Your task to perform on an android device: Go to notification settings Image 0: 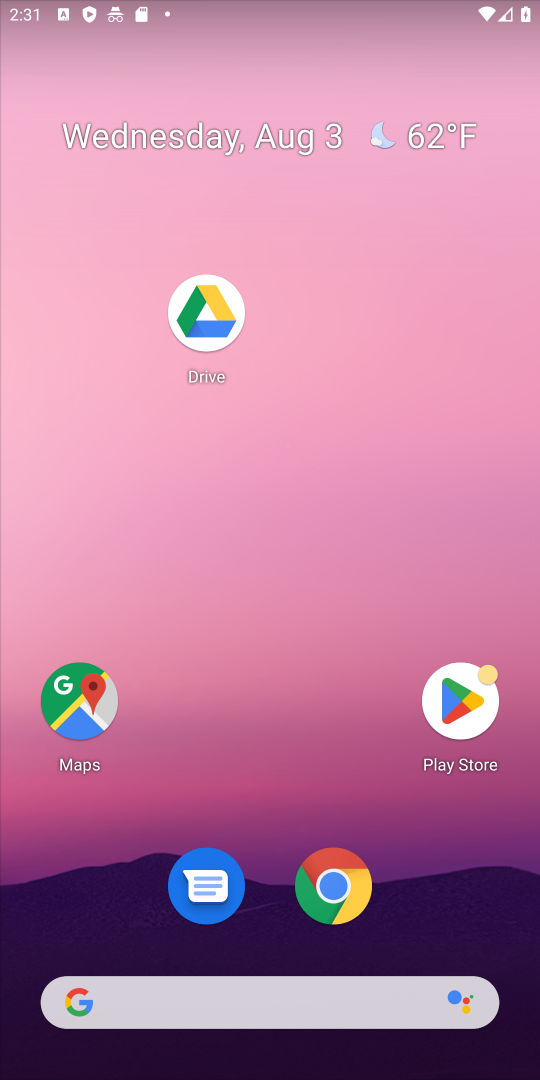
Step 0: drag from (406, 857) to (486, 7)
Your task to perform on an android device: Go to notification settings Image 1: 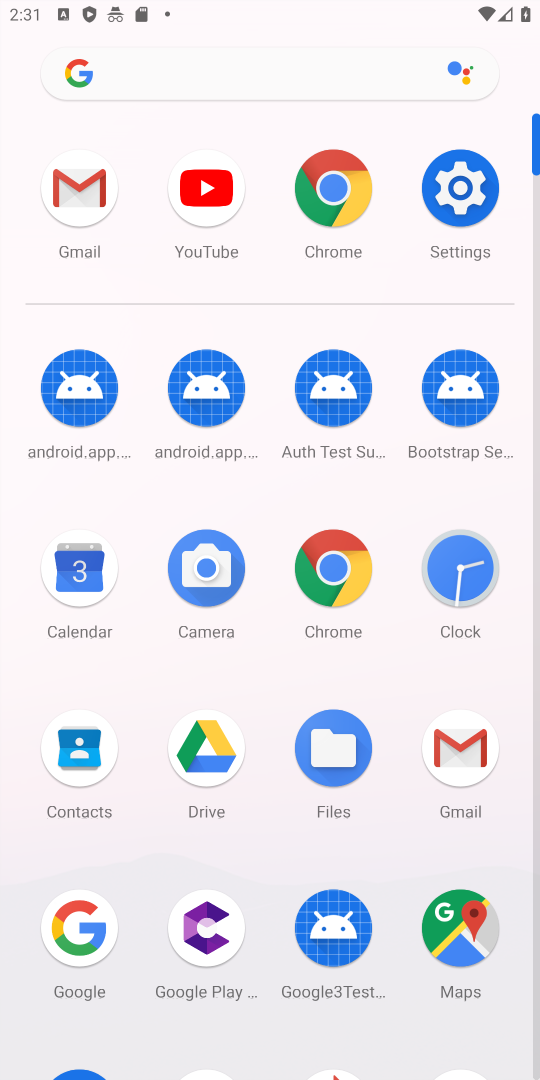
Step 1: click (468, 182)
Your task to perform on an android device: Go to notification settings Image 2: 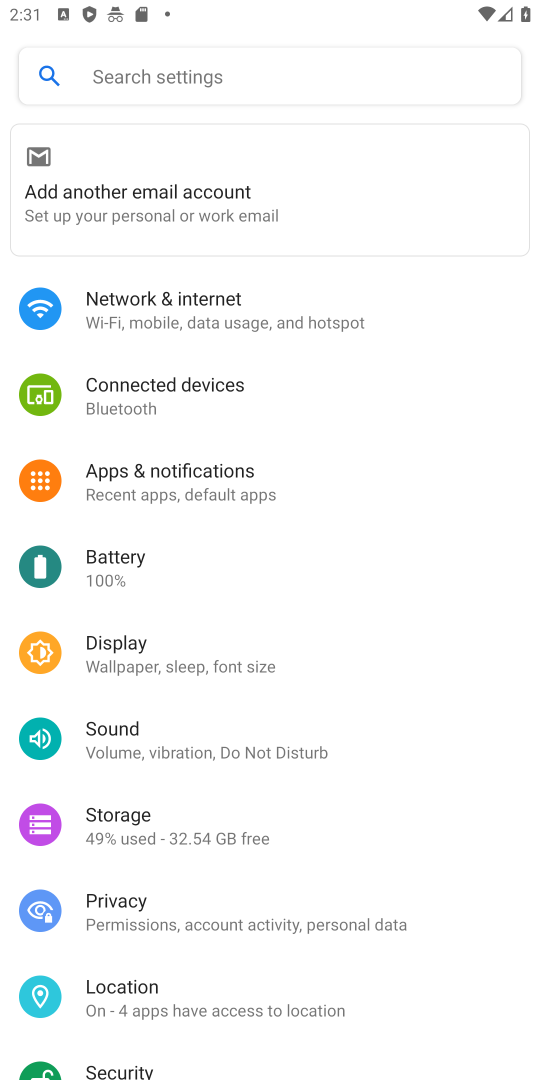
Step 2: click (290, 471)
Your task to perform on an android device: Go to notification settings Image 3: 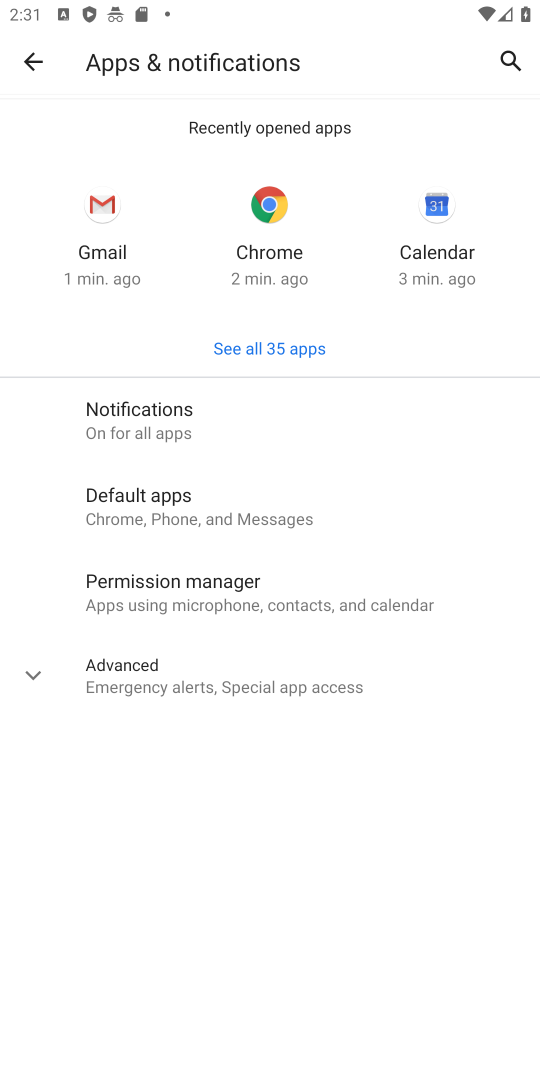
Step 3: click (199, 423)
Your task to perform on an android device: Go to notification settings Image 4: 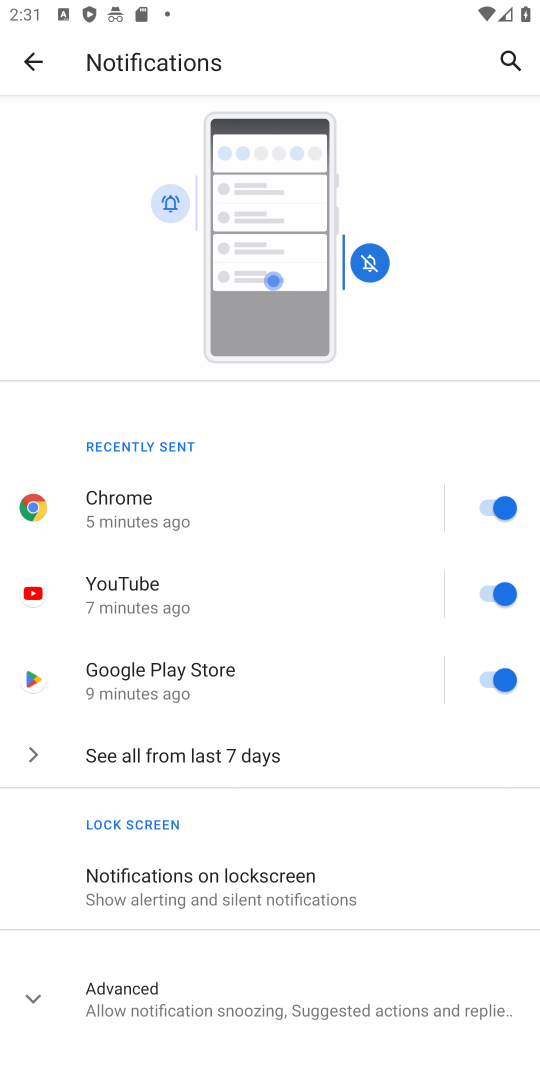
Step 4: task complete